Your task to perform on an android device: open app "Truecaller" (install if not already installed) and enter user name: "coauthor@gmail.com" and password: "quadrangle" Image 0: 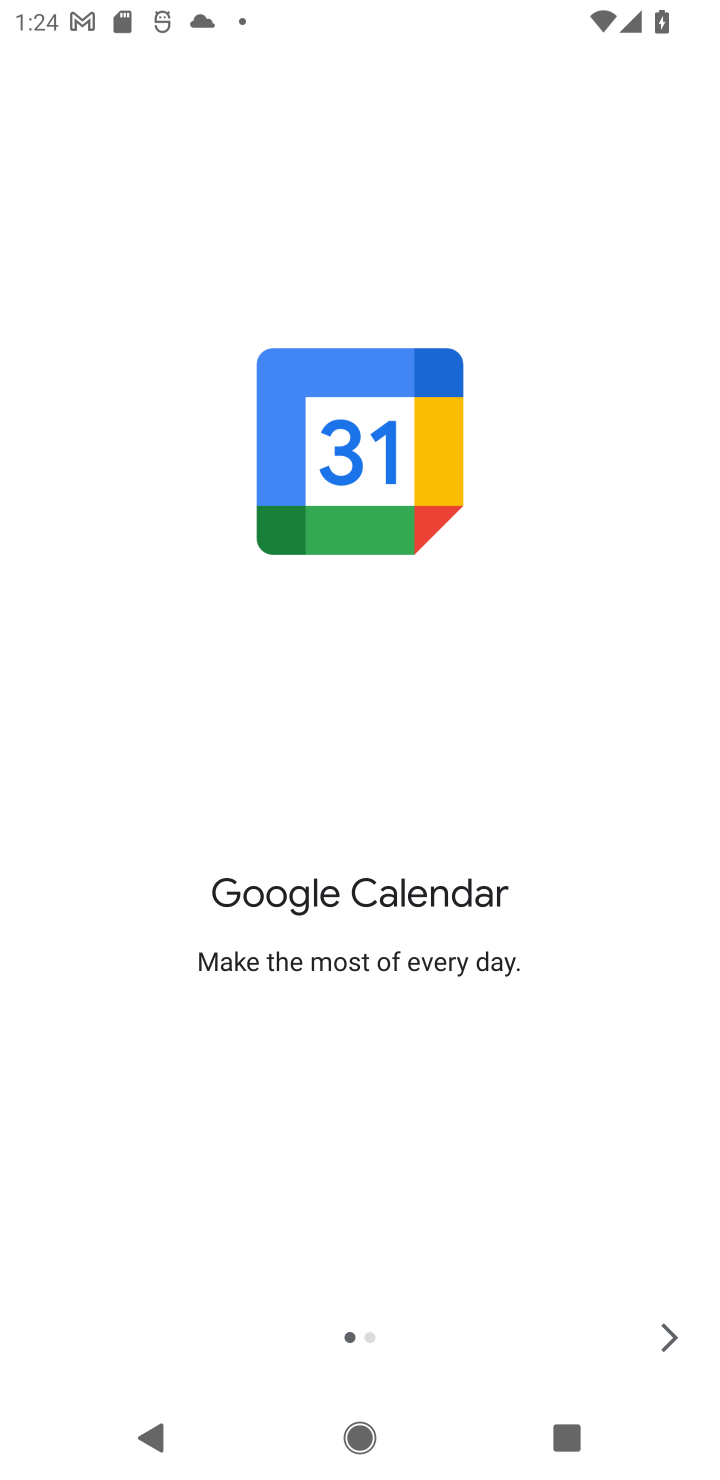
Step 0: press home button
Your task to perform on an android device: open app "Truecaller" (install if not already installed) and enter user name: "coauthor@gmail.com" and password: "quadrangle" Image 1: 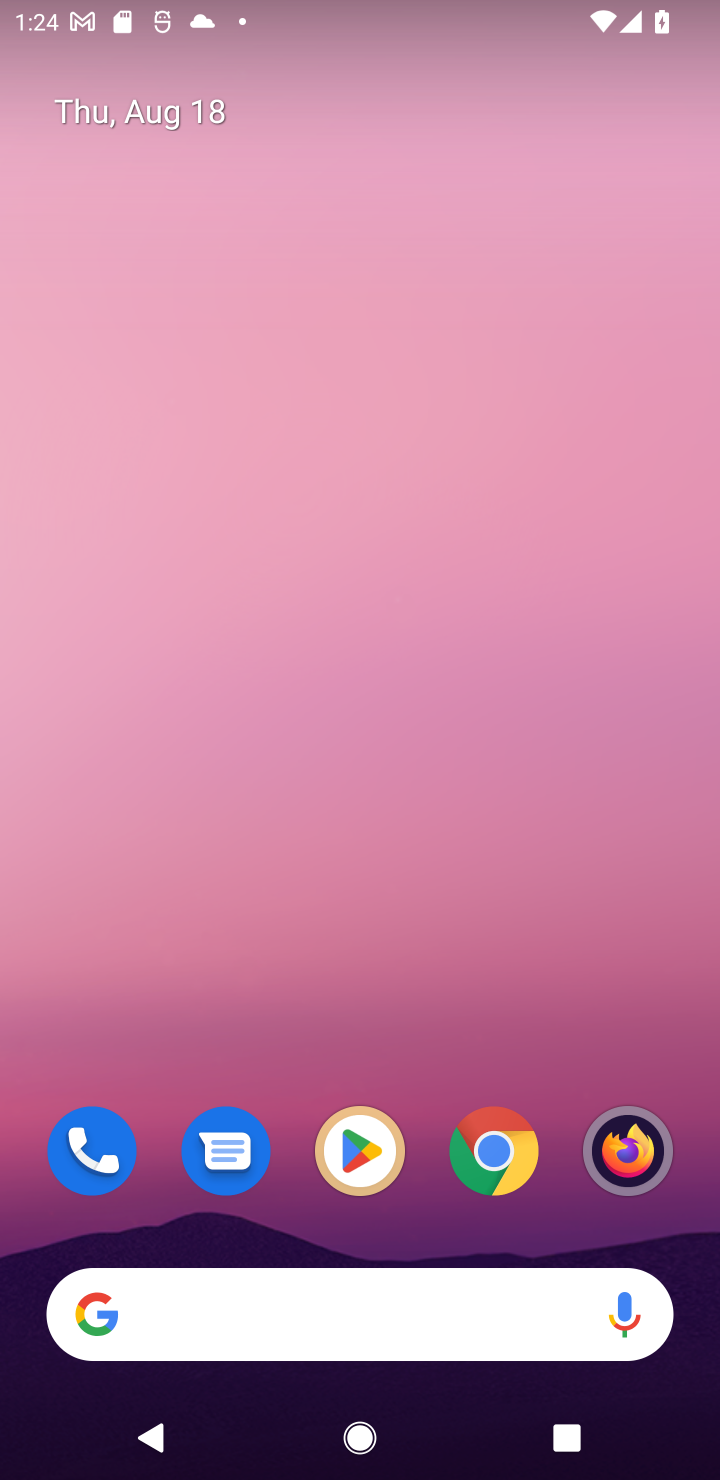
Step 1: click (368, 1134)
Your task to perform on an android device: open app "Truecaller" (install if not already installed) and enter user name: "coauthor@gmail.com" and password: "quadrangle" Image 2: 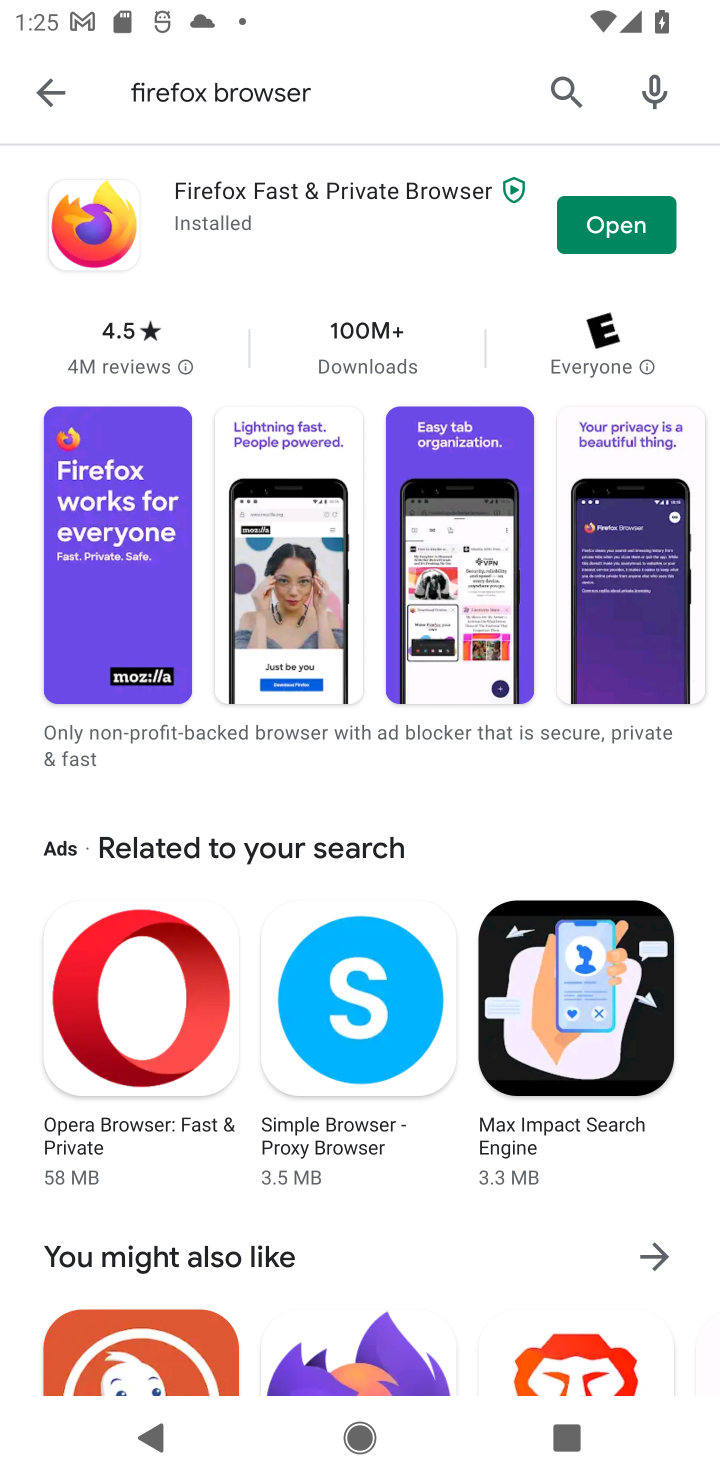
Step 2: click (45, 97)
Your task to perform on an android device: open app "Truecaller" (install if not already installed) and enter user name: "coauthor@gmail.com" and password: "quadrangle" Image 3: 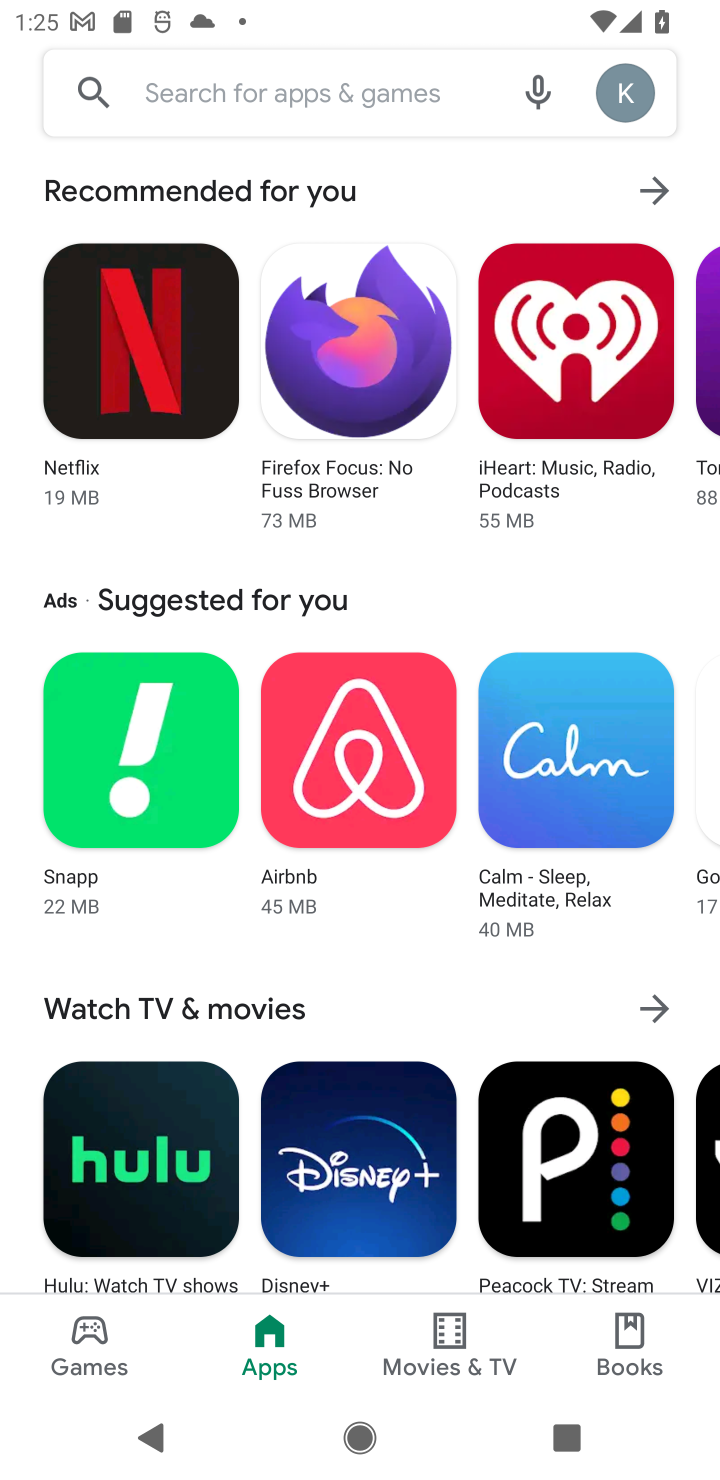
Step 3: click (239, 85)
Your task to perform on an android device: open app "Truecaller" (install if not already installed) and enter user name: "coauthor@gmail.com" and password: "quadrangle" Image 4: 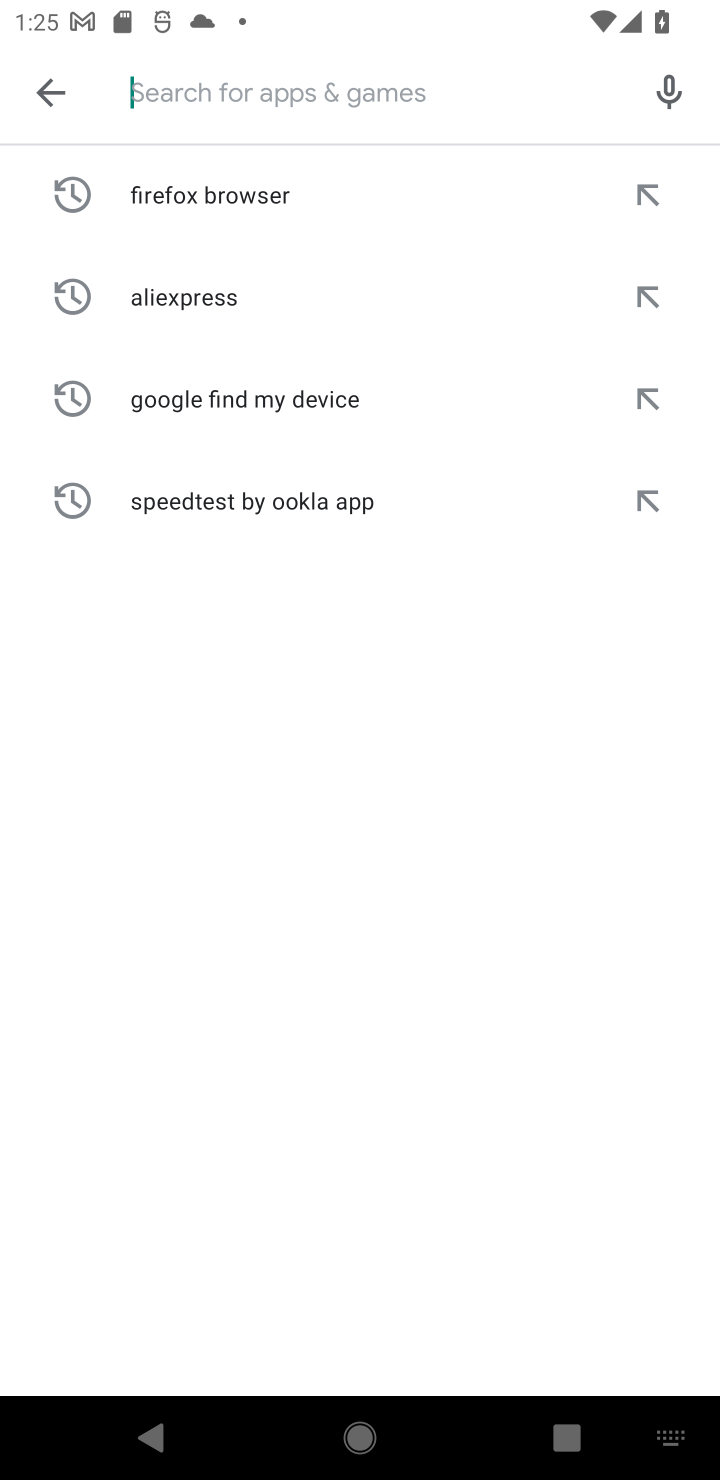
Step 4: type "Truecaller"
Your task to perform on an android device: open app "Truecaller" (install if not already installed) and enter user name: "coauthor@gmail.com" and password: "quadrangle" Image 5: 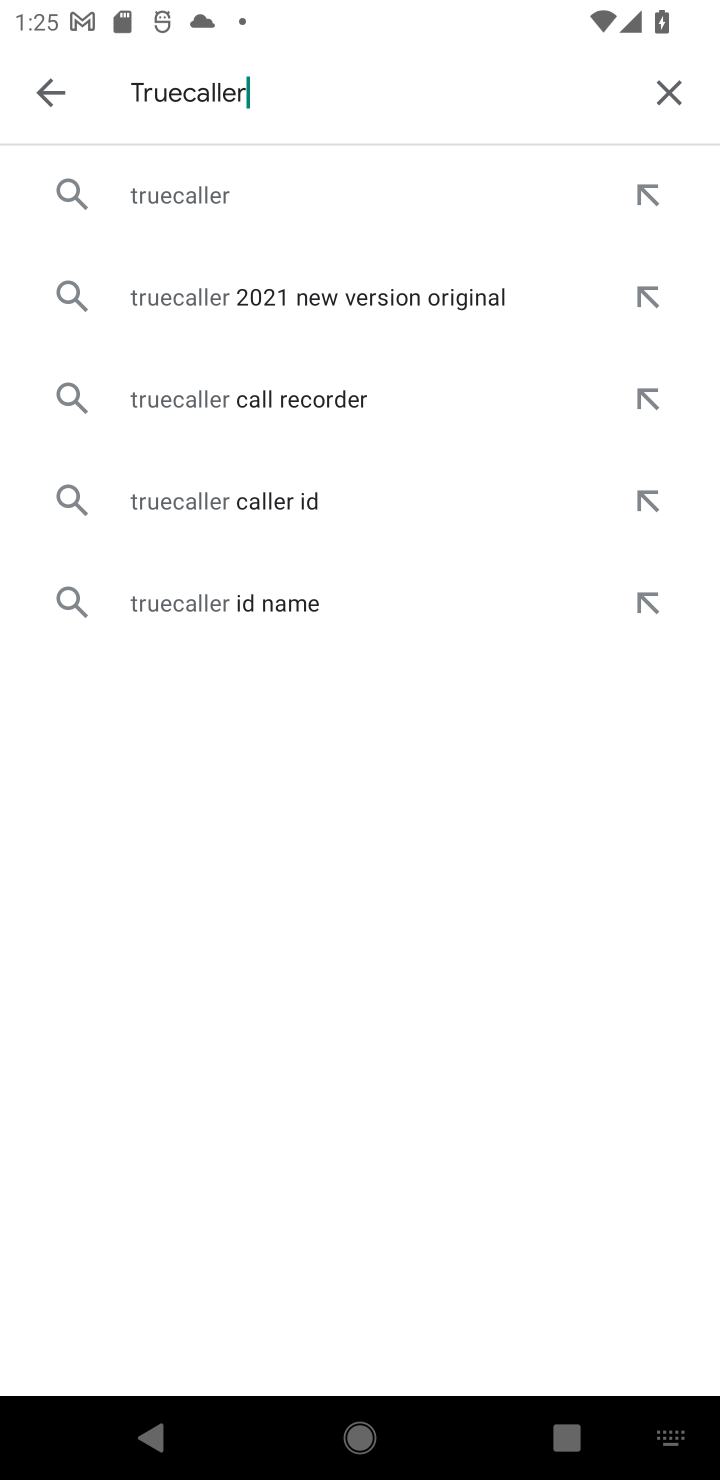
Step 5: click (214, 199)
Your task to perform on an android device: open app "Truecaller" (install if not already installed) and enter user name: "coauthor@gmail.com" and password: "quadrangle" Image 6: 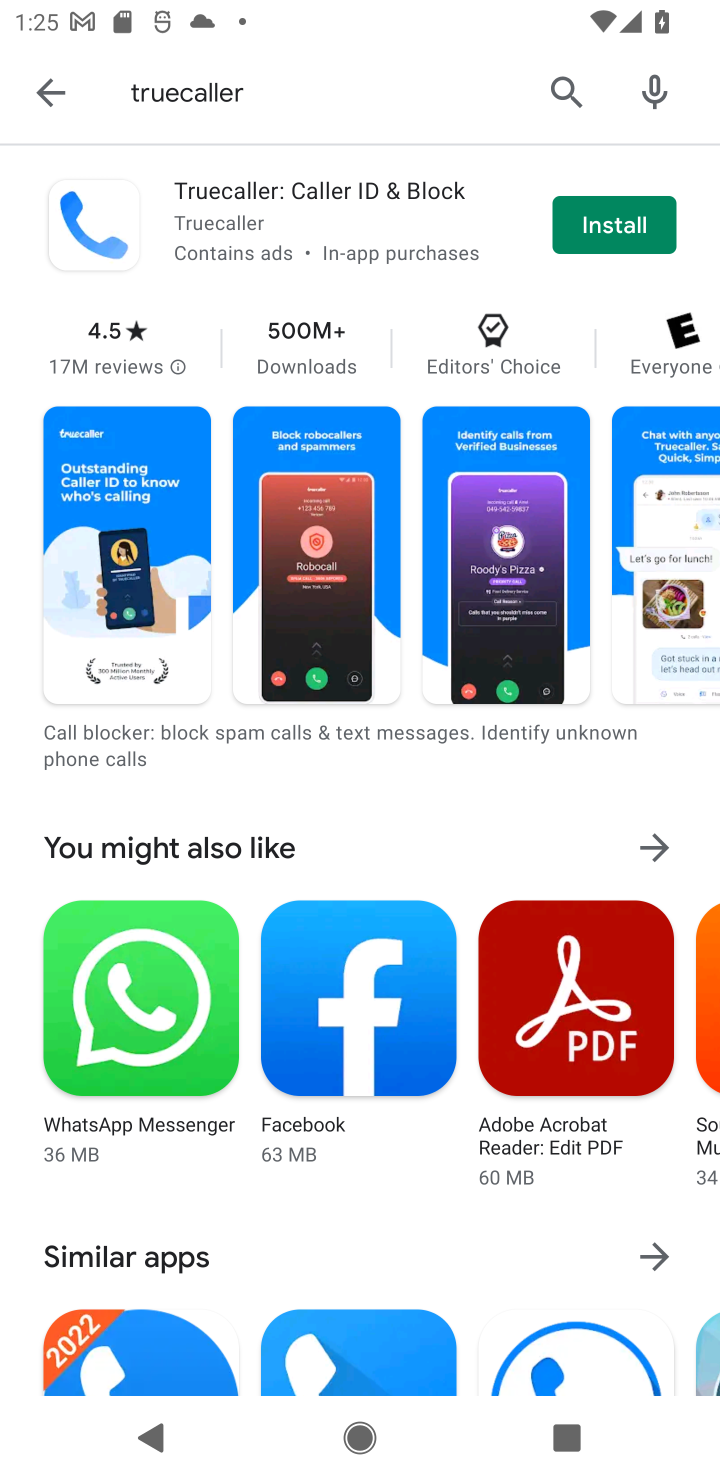
Step 6: click (628, 215)
Your task to perform on an android device: open app "Truecaller" (install if not already installed) and enter user name: "coauthor@gmail.com" and password: "quadrangle" Image 7: 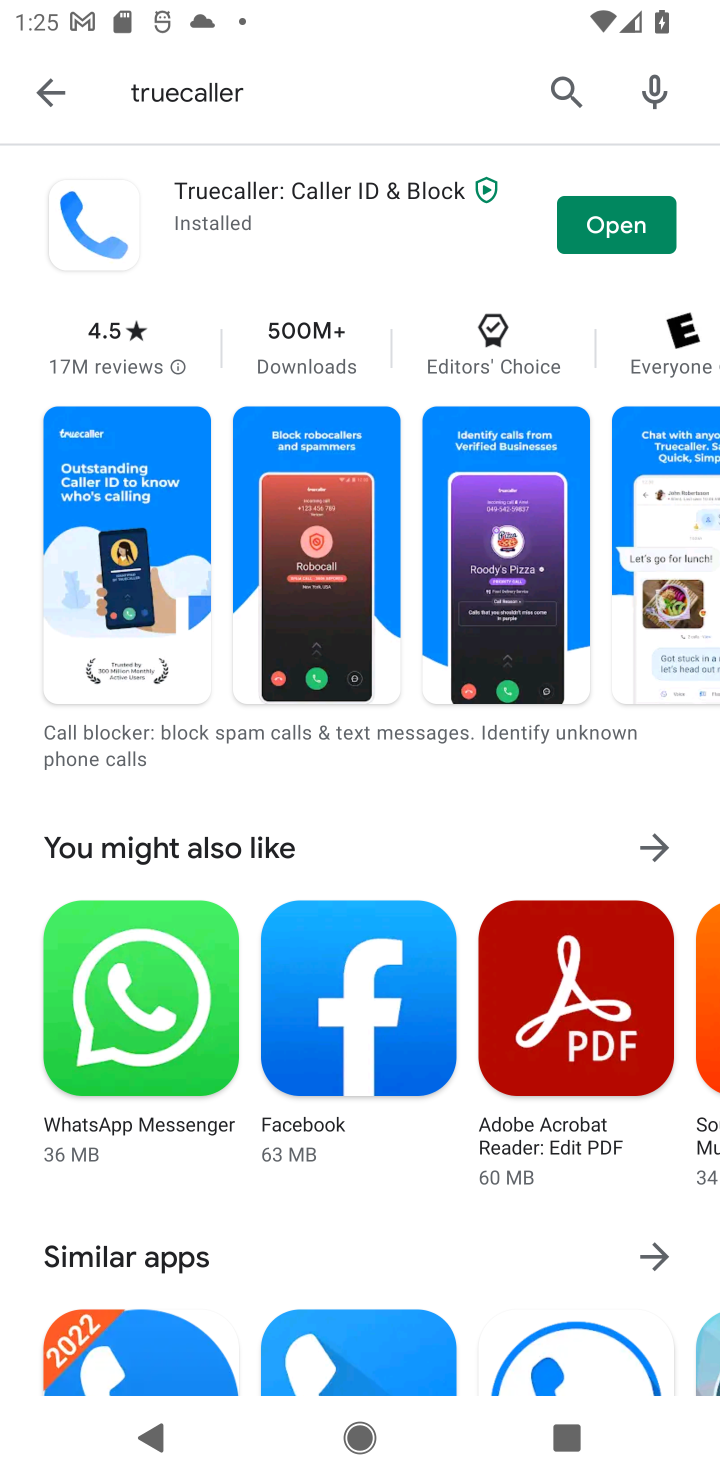
Step 7: click (628, 215)
Your task to perform on an android device: open app "Truecaller" (install if not already installed) and enter user name: "coauthor@gmail.com" and password: "quadrangle" Image 8: 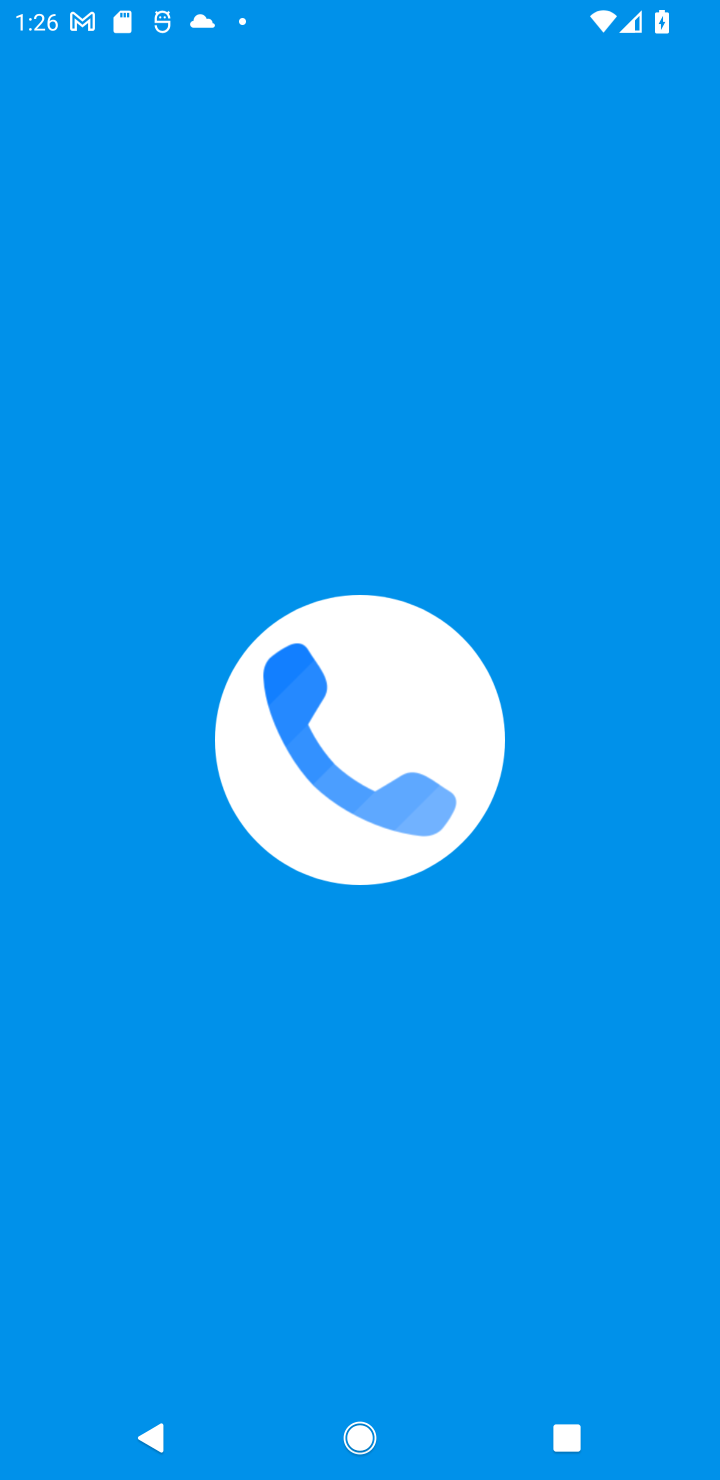
Step 8: task complete